Your task to perform on an android device: toggle improve location accuracy Image 0: 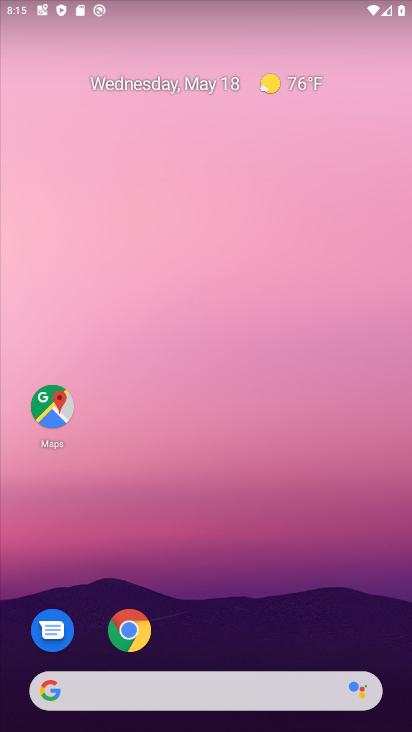
Step 0: drag from (162, 628) to (189, 137)
Your task to perform on an android device: toggle improve location accuracy Image 1: 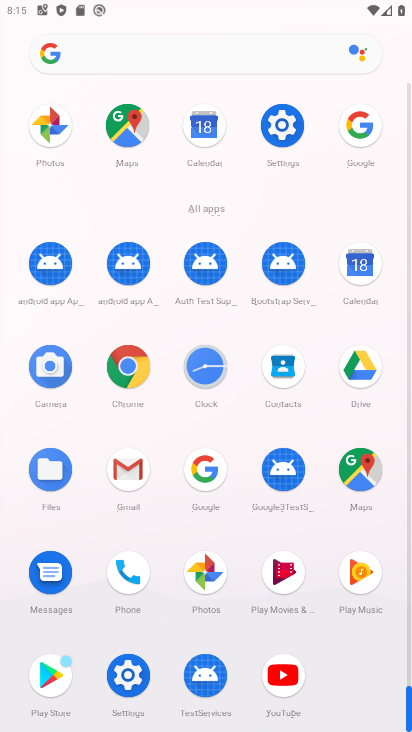
Step 1: click (290, 127)
Your task to perform on an android device: toggle improve location accuracy Image 2: 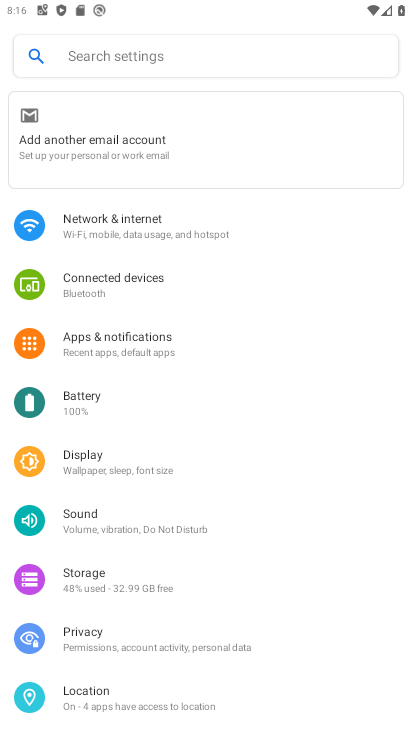
Step 2: click (144, 701)
Your task to perform on an android device: toggle improve location accuracy Image 3: 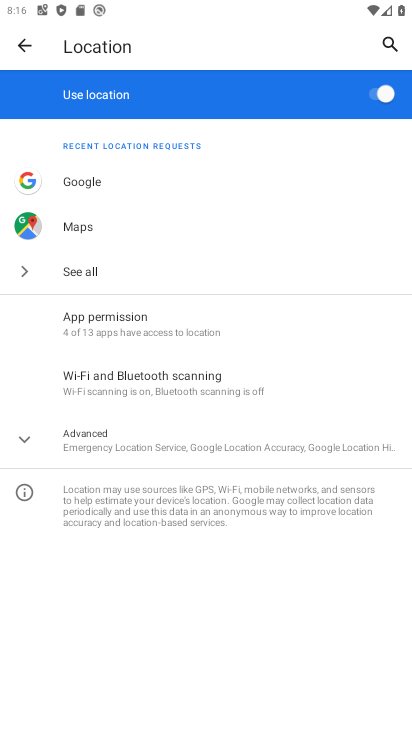
Step 3: click (299, 447)
Your task to perform on an android device: toggle improve location accuracy Image 4: 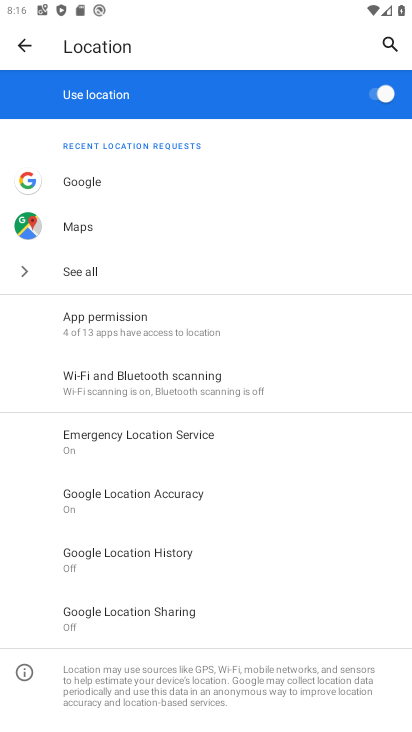
Step 4: click (204, 509)
Your task to perform on an android device: toggle improve location accuracy Image 5: 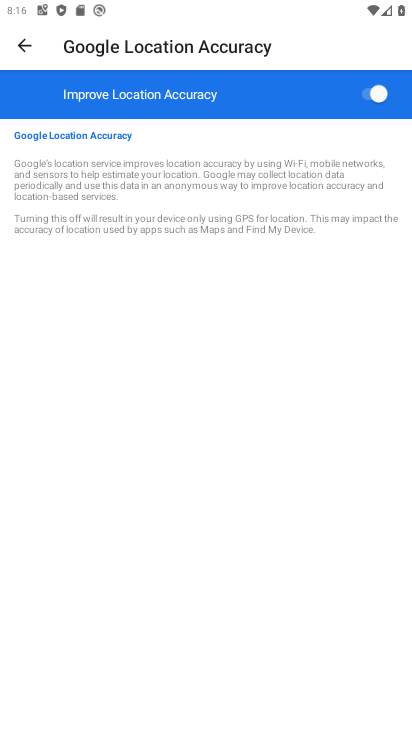
Step 5: click (383, 90)
Your task to perform on an android device: toggle improve location accuracy Image 6: 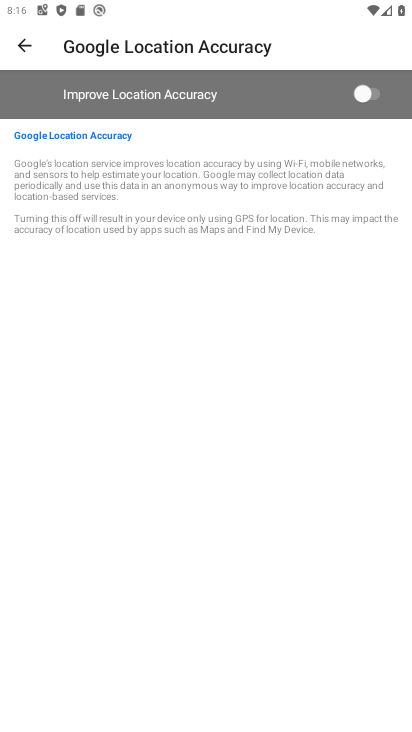
Step 6: task complete